Your task to perform on an android device: Open the phone app and click the voicemail tab. Image 0: 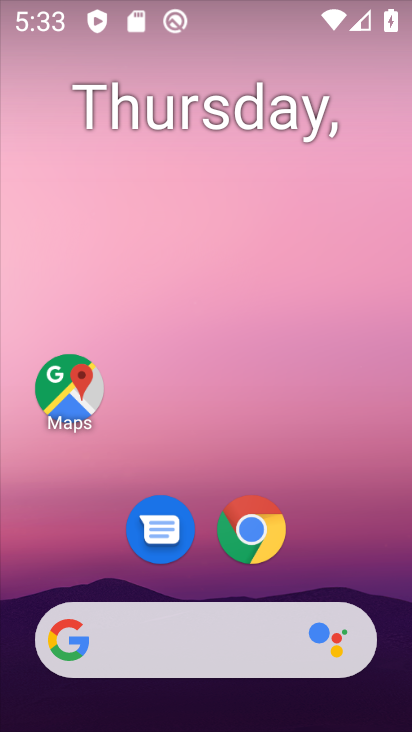
Step 0: drag from (348, 546) to (275, 2)
Your task to perform on an android device: Open the phone app and click the voicemail tab. Image 1: 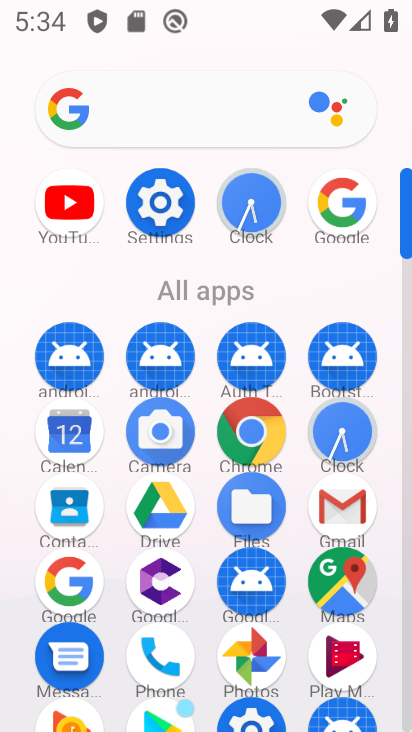
Step 1: drag from (196, 602) to (194, 342)
Your task to perform on an android device: Open the phone app and click the voicemail tab. Image 2: 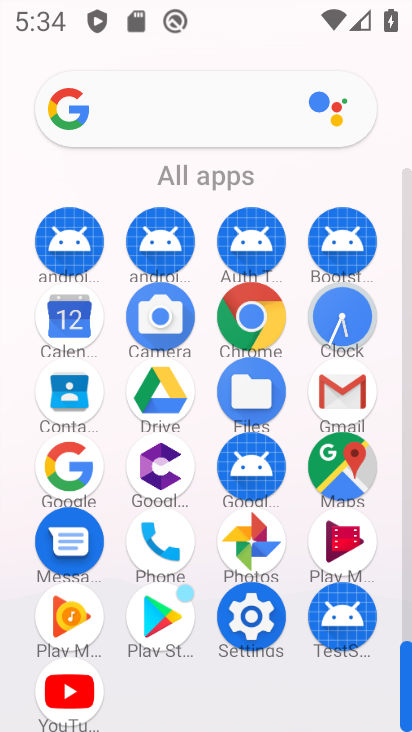
Step 2: click (160, 543)
Your task to perform on an android device: Open the phone app and click the voicemail tab. Image 3: 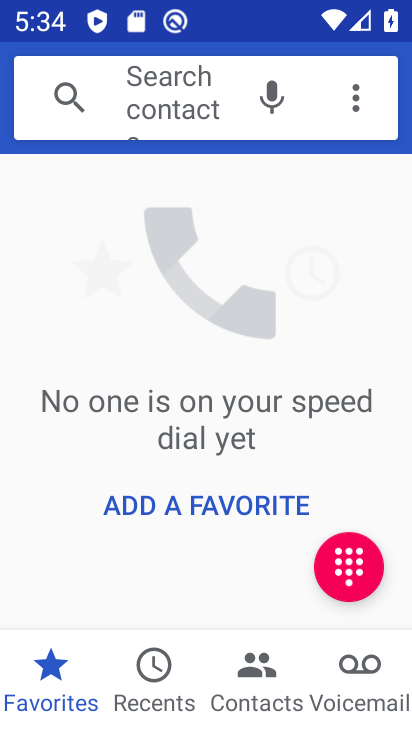
Step 3: click (357, 669)
Your task to perform on an android device: Open the phone app and click the voicemail tab. Image 4: 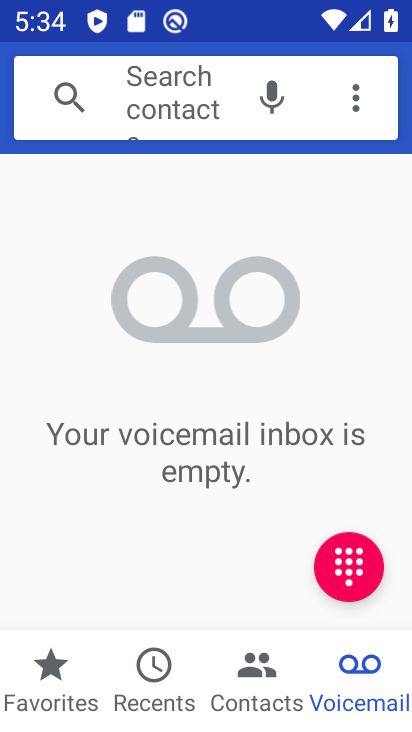
Step 4: task complete